Your task to perform on an android device: turn on priority inbox in the gmail app Image 0: 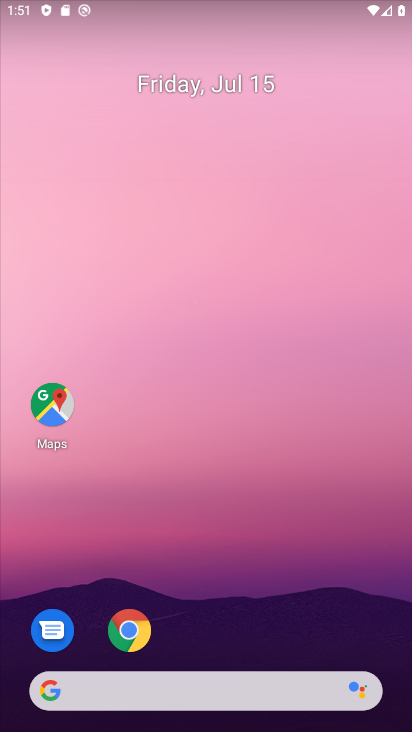
Step 0: press home button
Your task to perform on an android device: turn on priority inbox in the gmail app Image 1: 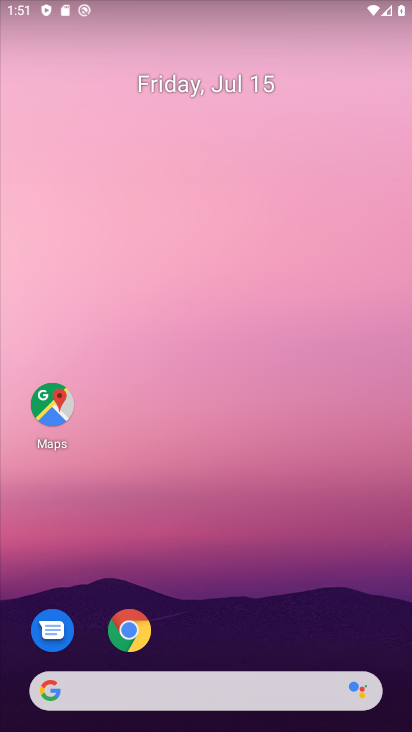
Step 1: press home button
Your task to perform on an android device: turn on priority inbox in the gmail app Image 2: 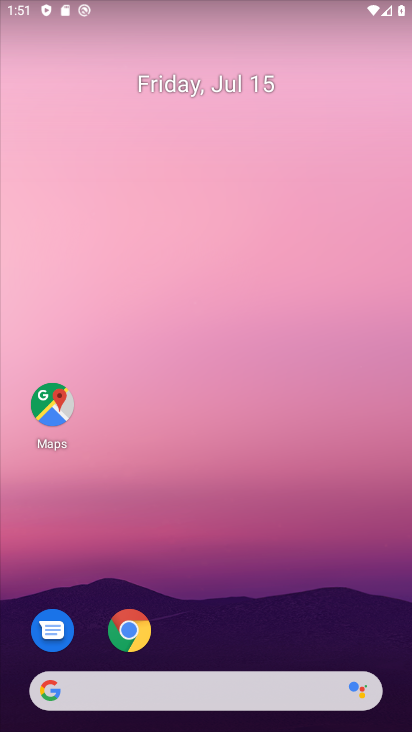
Step 2: press home button
Your task to perform on an android device: turn on priority inbox in the gmail app Image 3: 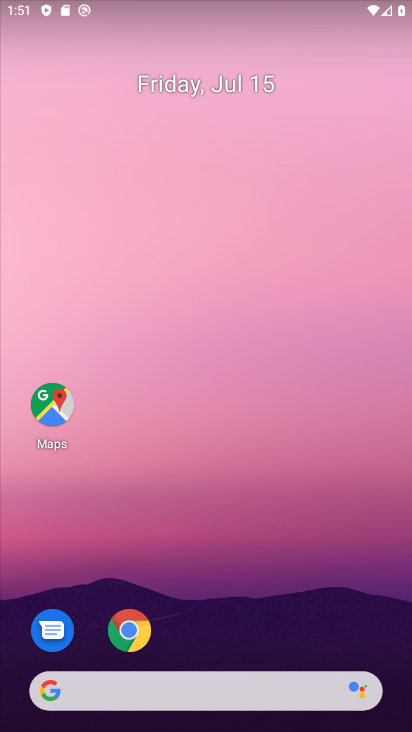
Step 3: click (373, 9)
Your task to perform on an android device: turn on priority inbox in the gmail app Image 4: 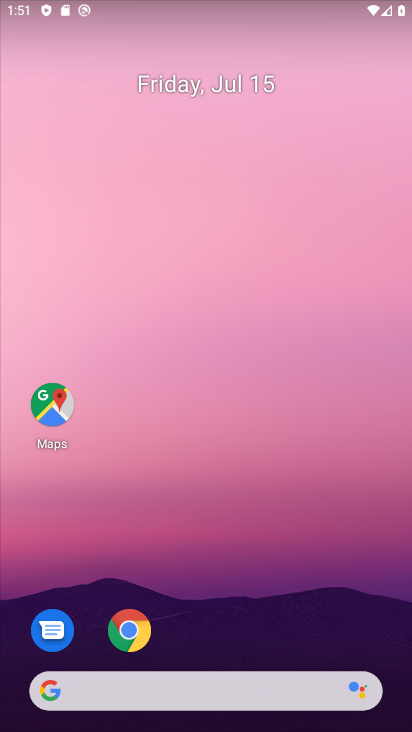
Step 4: drag from (248, 611) to (225, 120)
Your task to perform on an android device: turn on priority inbox in the gmail app Image 5: 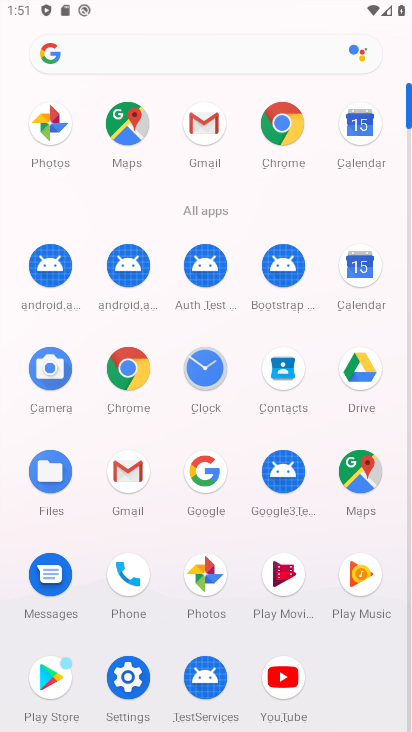
Step 5: click (216, 126)
Your task to perform on an android device: turn on priority inbox in the gmail app Image 6: 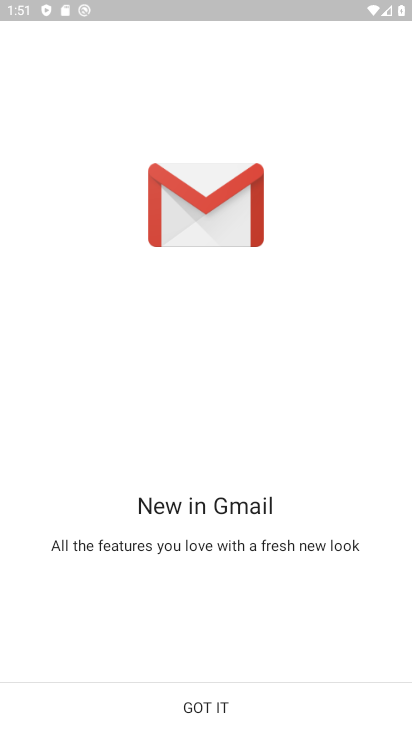
Step 6: click (207, 710)
Your task to perform on an android device: turn on priority inbox in the gmail app Image 7: 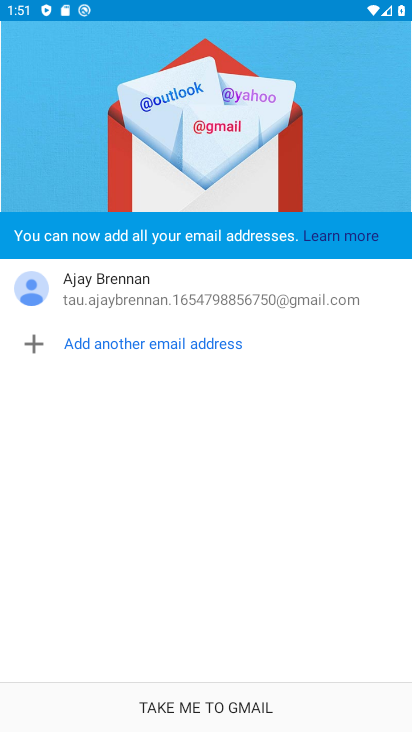
Step 7: click (207, 710)
Your task to perform on an android device: turn on priority inbox in the gmail app Image 8: 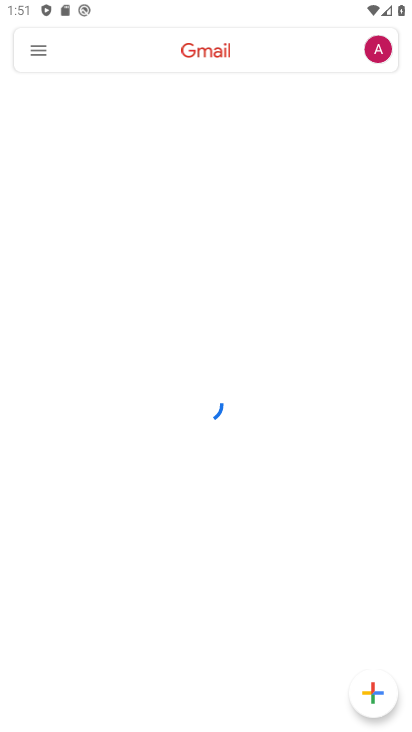
Step 8: click (39, 53)
Your task to perform on an android device: turn on priority inbox in the gmail app Image 9: 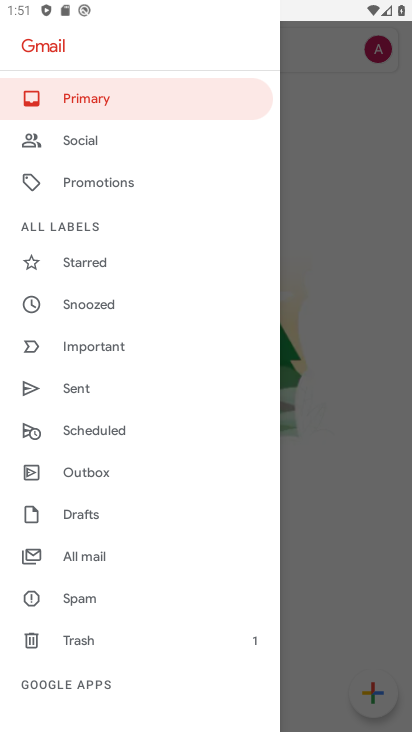
Step 9: drag from (82, 668) to (117, 301)
Your task to perform on an android device: turn on priority inbox in the gmail app Image 10: 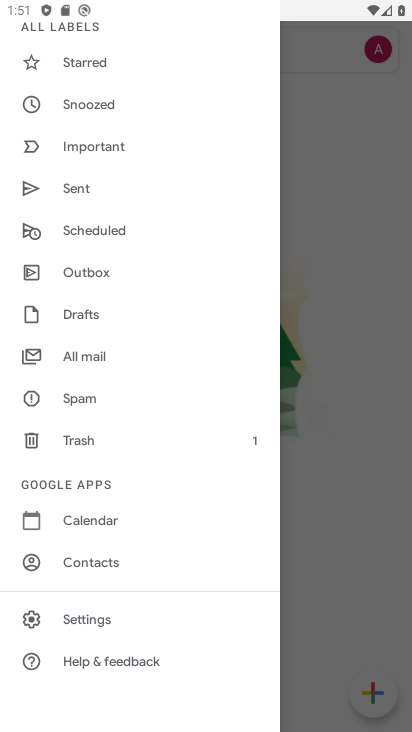
Step 10: click (92, 619)
Your task to perform on an android device: turn on priority inbox in the gmail app Image 11: 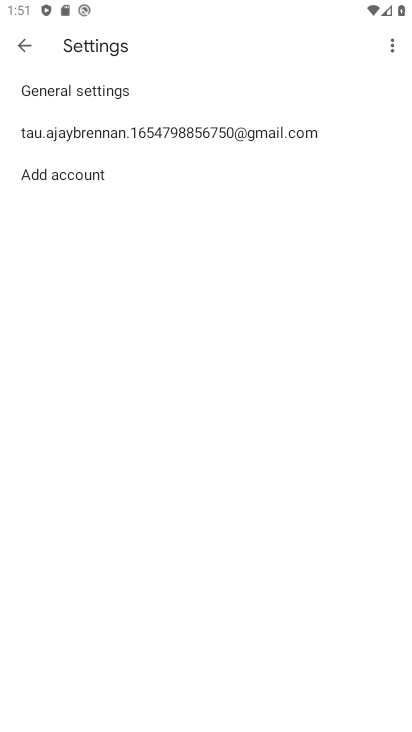
Step 11: click (77, 135)
Your task to perform on an android device: turn on priority inbox in the gmail app Image 12: 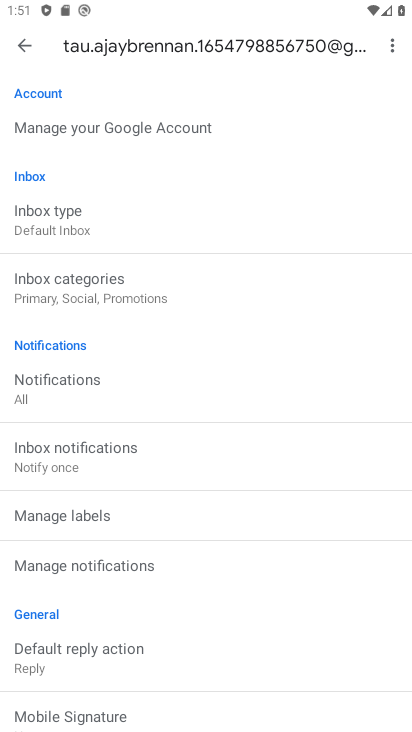
Step 12: click (45, 221)
Your task to perform on an android device: turn on priority inbox in the gmail app Image 13: 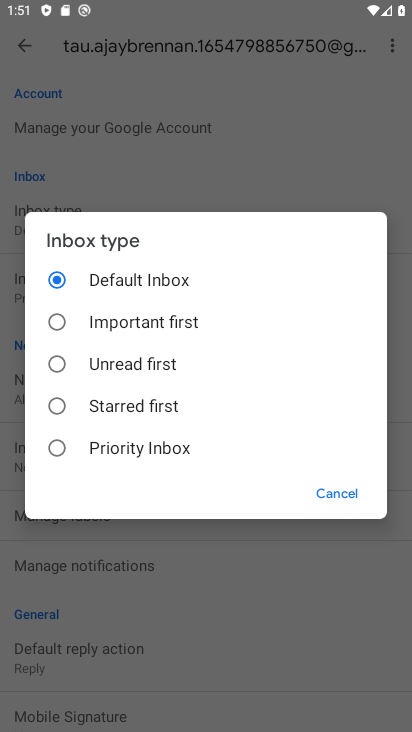
Step 13: click (55, 452)
Your task to perform on an android device: turn on priority inbox in the gmail app Image 14: 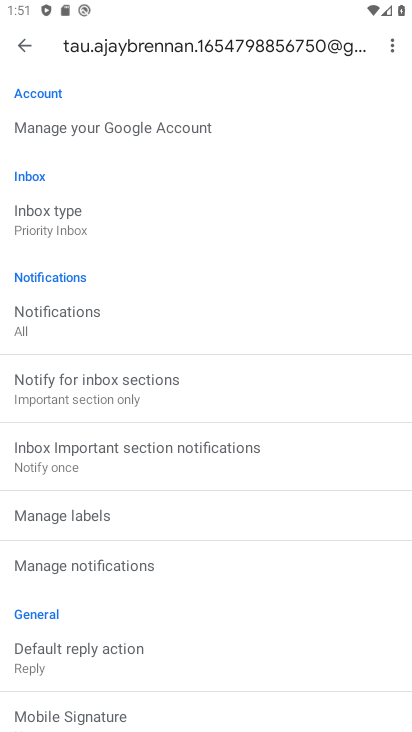
Step 14: task complete